Your task to perform on an android device: Open the web browser Image 0: 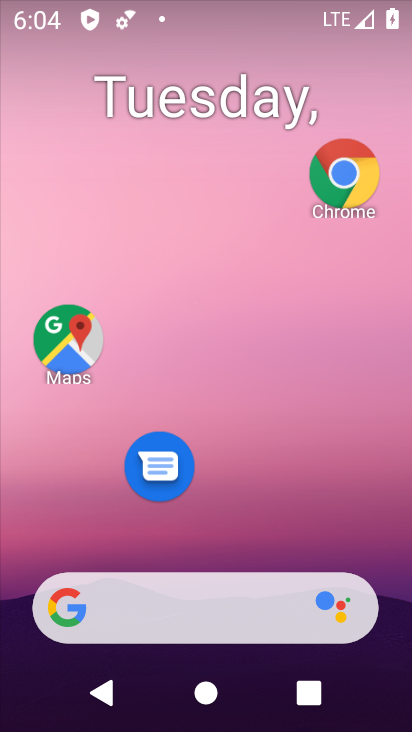
Step 0: press home button
Your task to perform on an android device: Open the web browser Image 1: 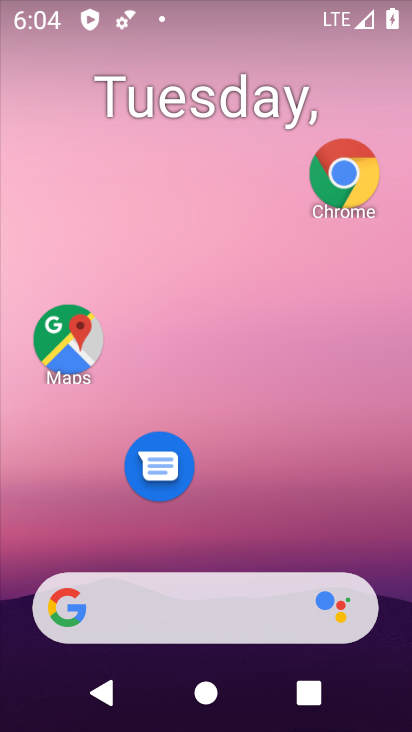
Step 1: drag from (317, 543) to (351, 130)
Your task to perform on an android device: Open the web browser Image 2: 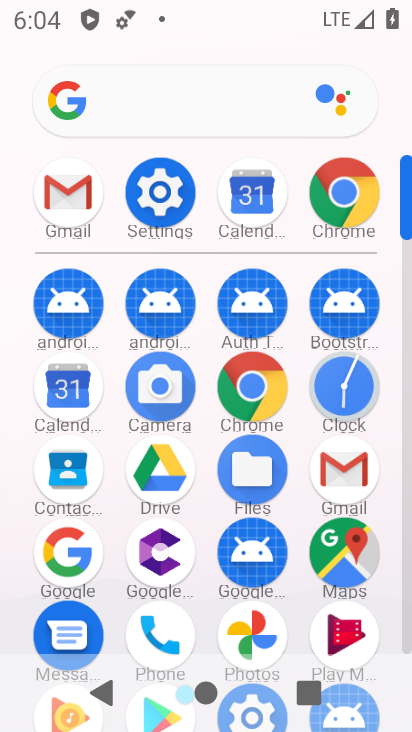
Step 2: drag from (293, 632) to (352, 199)
Your task to perform on an android device: Open the web browser Image 3: 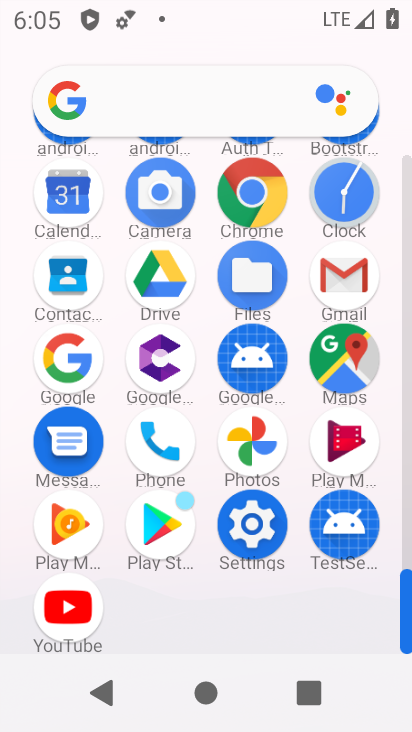
Step 3: click (243, 197)
Your task to perform on an android device: Open the web browser Image 4: 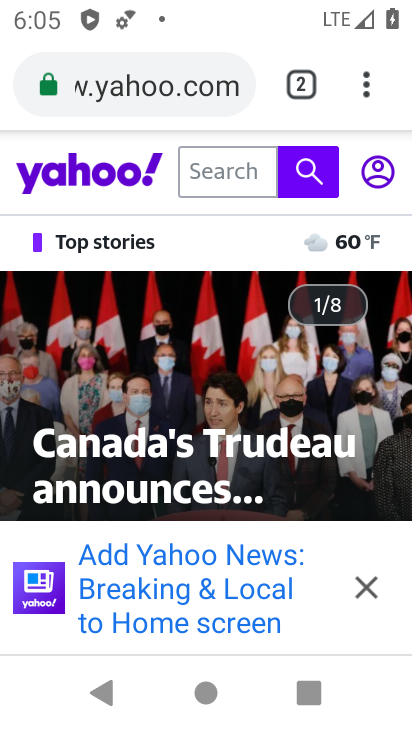
Step 4: click (176, 82)
Your task to perform on an android device: Open the web browser Image 5: 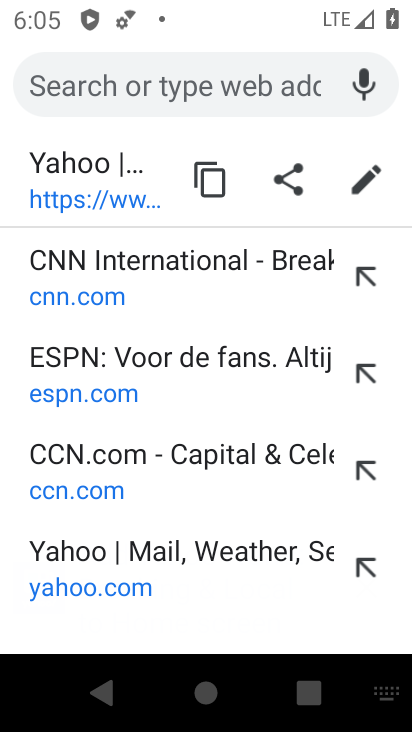
Step 5: type " web browser"
Your task to perform on an android device: Open the web browser Image 6: 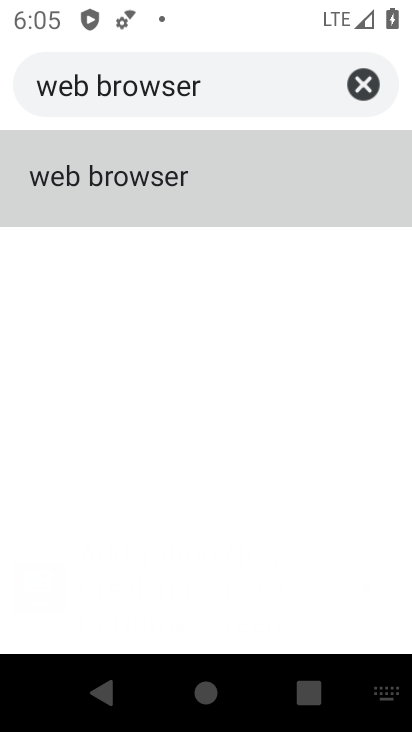
Step 6: click (201, 179)
Your task to perform on an android device: Open the web browser Image 7: 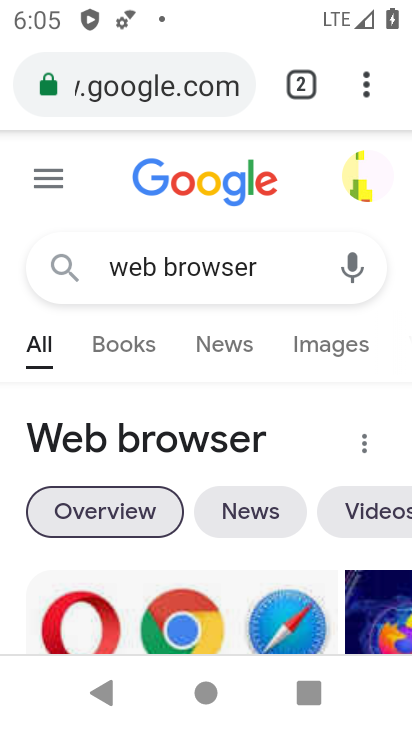
Step 7: task complete